Your task to perform on an android device: Is it going to rain today? Image 0: 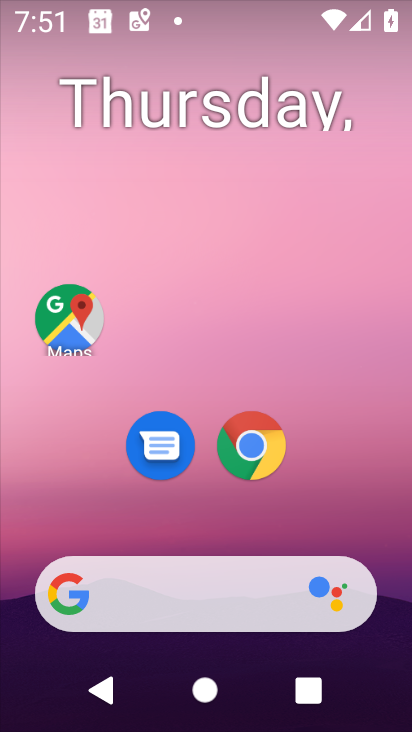
Step 0: drag from (391, 488) to (291, 45)
Your task to perform on an android device: Is it going to rain today? Image 1: 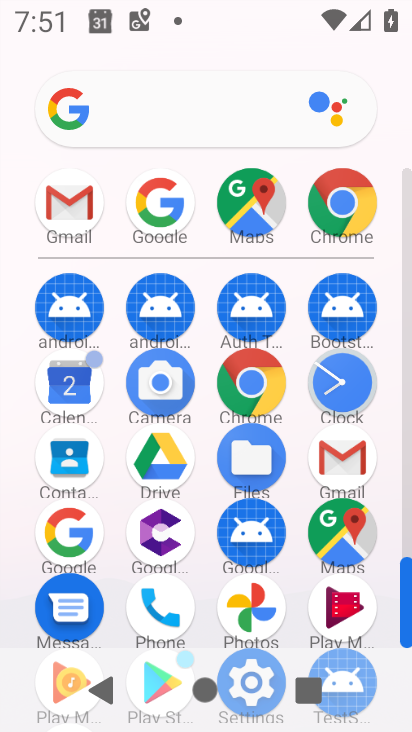
Step 1: click (96, 523)
Your task to perform on an android device: Is it going to rain today? Image 2: 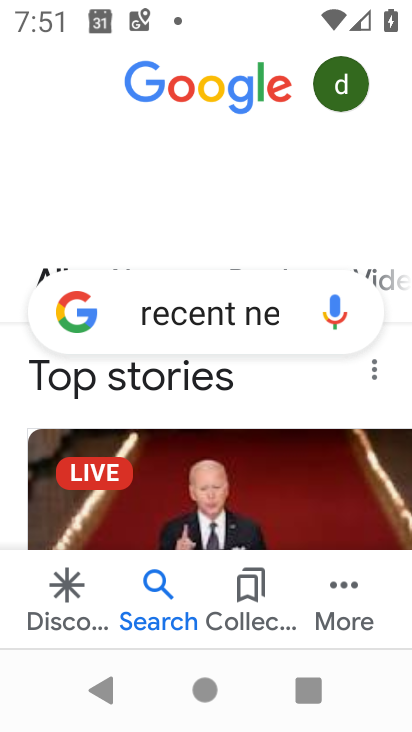
Step 2: press back button
Your task to perform on an android device: Is it going to rain today? Image 3: 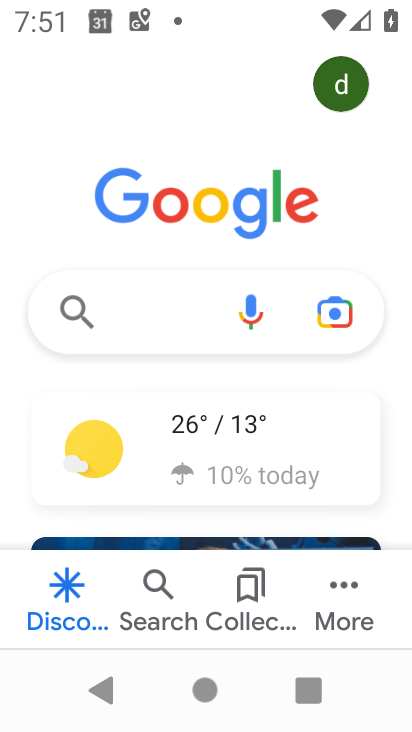
Step 3: click (154, 299)
Your task to perform on an android device: Is it going to rain today? Image 4: 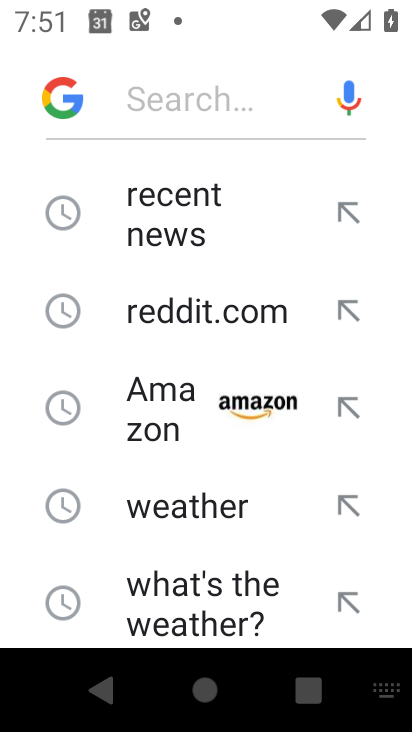
Step 4: drag from (139, 553) to (169, 136)
Your task to perform on an android device: Is it going to rain today? Image 5: 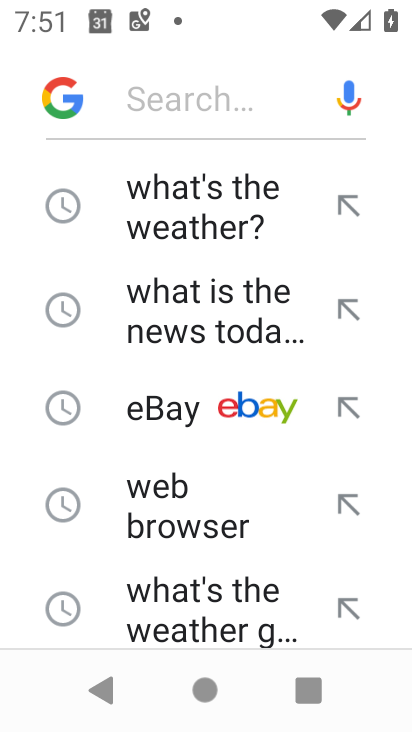
Step 5: drag from (125, 606) to (235, 180)
Your task to perform on an android device: Is it going to rain today? Image 6: 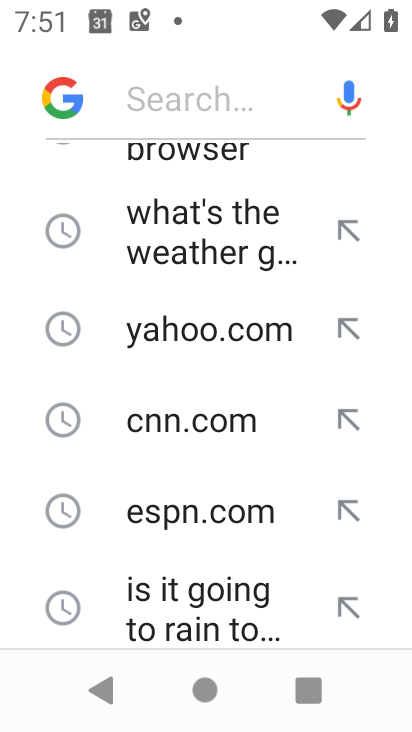
Step 6: click (226, 590)
Your task to perform on an android device: Is it going to rain today? Image 7: 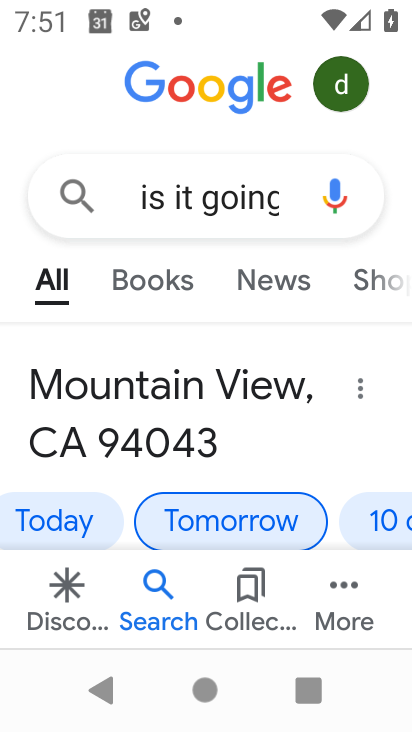
Step 7: task complete